Your task to perform on an android device: turn on airplane mode Image 0: 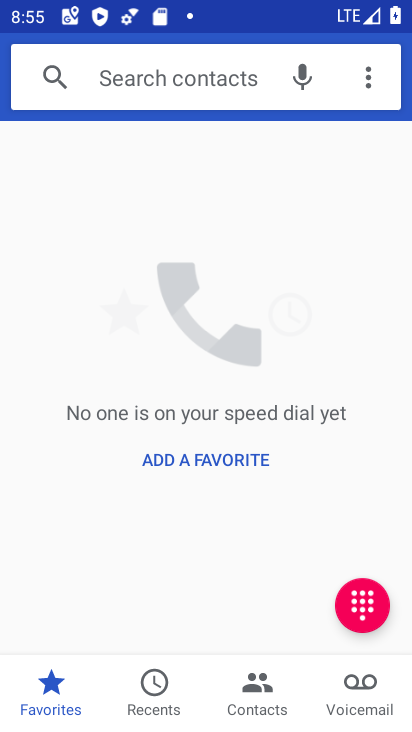
Step 0: press home button
Your task to perform on an android device: turn on airplane mode Image 1: 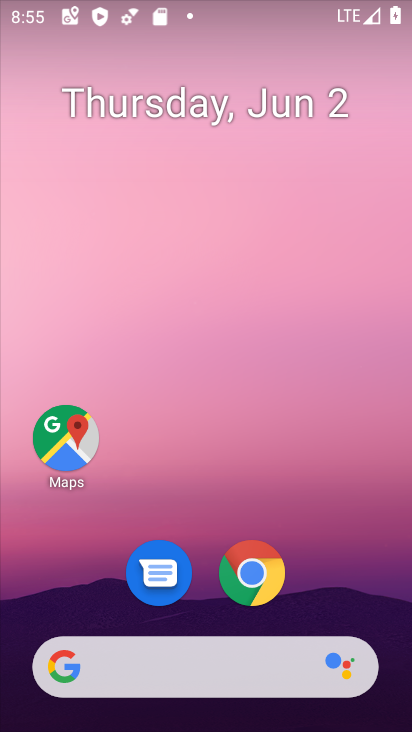
Step 1: drag from (350, 8) to (119, 708)
Your task to perform on an android device: turn on airplane mode Image 2: 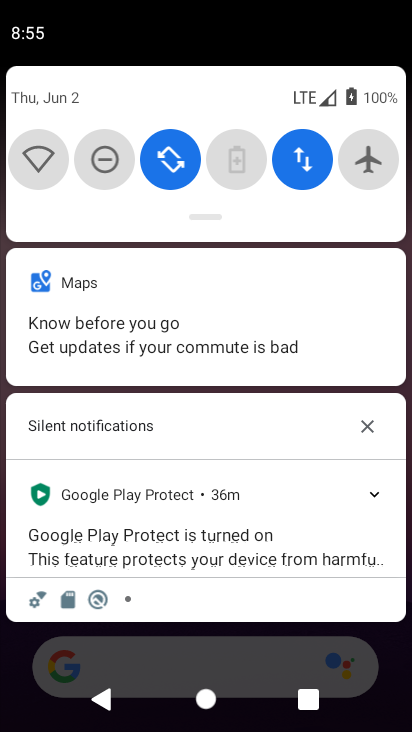
Step 2: click (370, 176)
Your task to perform on an android device: turn on airplane mode Image 3: 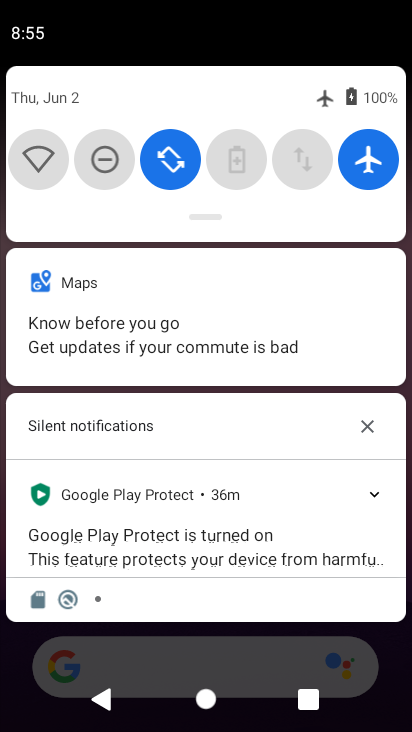
Step 3: task complete